Your task to perform on an android device: turn off location history Image 0: 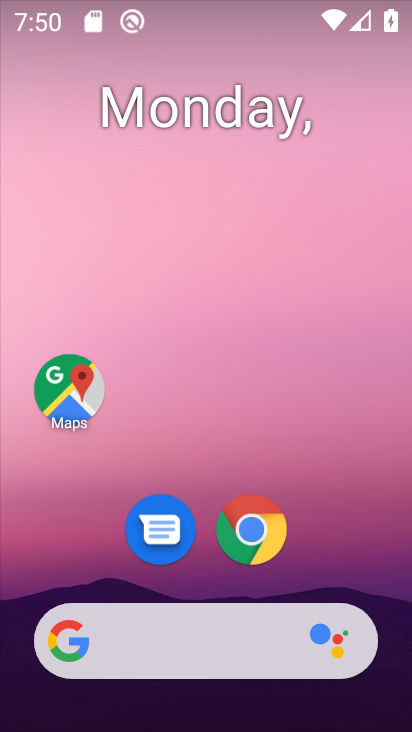
Step 0: drag from (204, 564) to (204, 132)
Your task to perform on an android device: turn off location history Image 1: 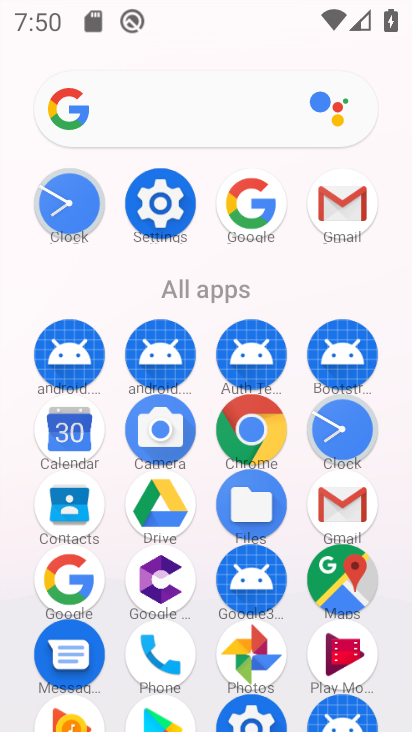
Step 1: click (179, 203)
Your task to perform on an android device: turn off location history Image 2: 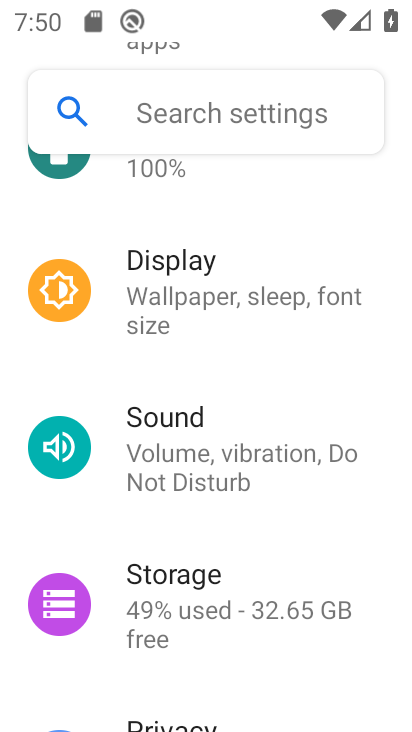
Step 2: drag from (182, 595) to (171, 232)
Your task to perform on an android device: turn off location history Image 3: 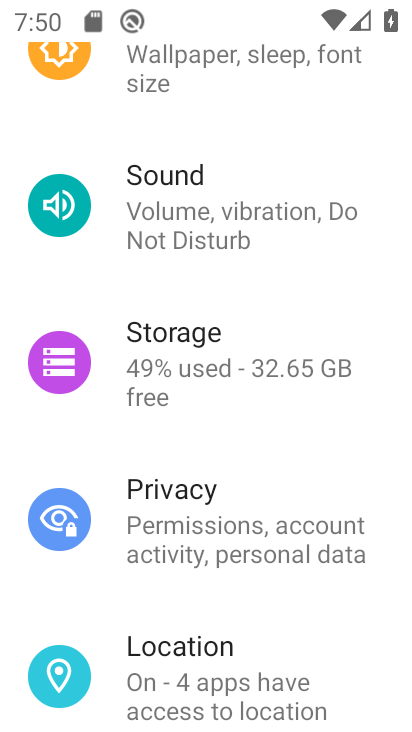
Step 3: click (191, 681)
Your task to perform on an android device: turn off location history Image 4: 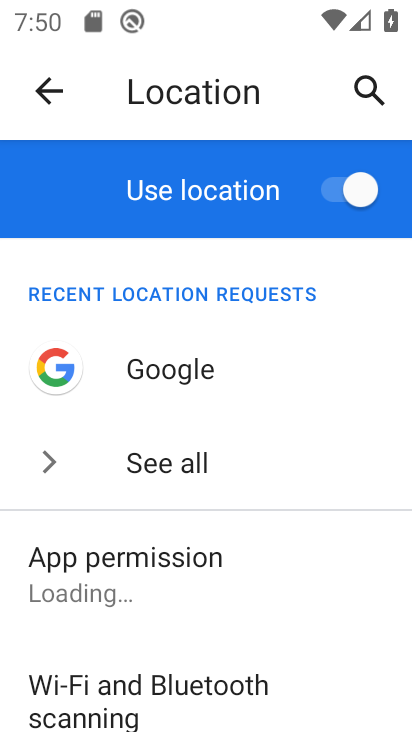
Step 4: drag from (130, 701) to (147, 252)
Your task to perform on an android device: turn off location history Image 5: 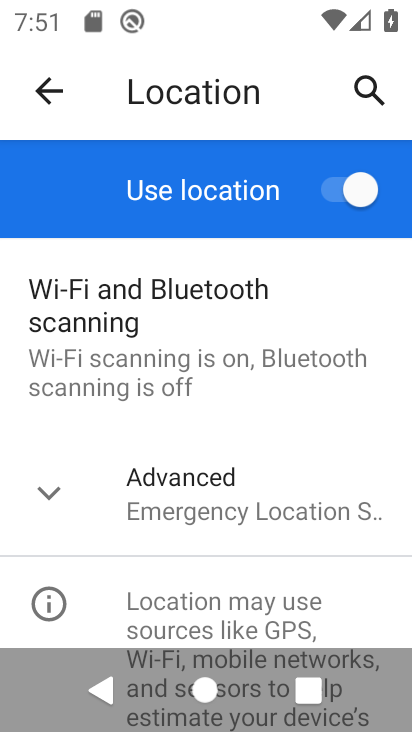
Step 5: click (167, 460)
Your task to perform on an android device: turn off location history Image 6: 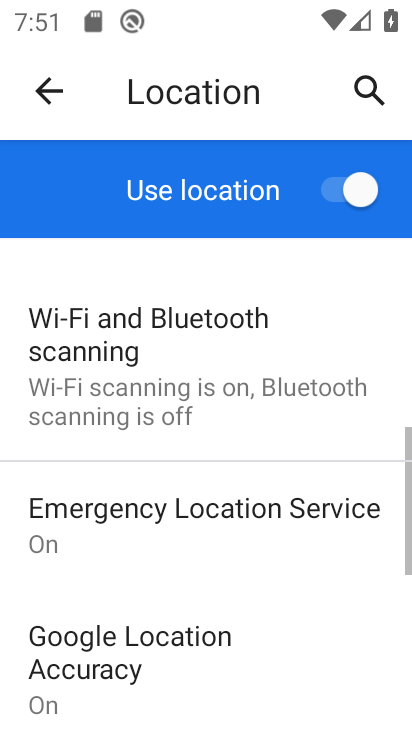
Step 6: drag from (185, 646) to (170, 302)
Your task to perform on an android device: turn off location history Image 7: 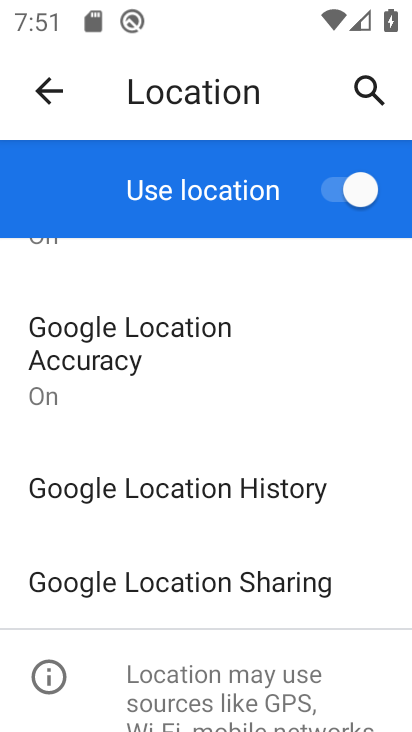
Step 7: click (104, 353)
Your task to perform on an android device: turn off location history Image 8: 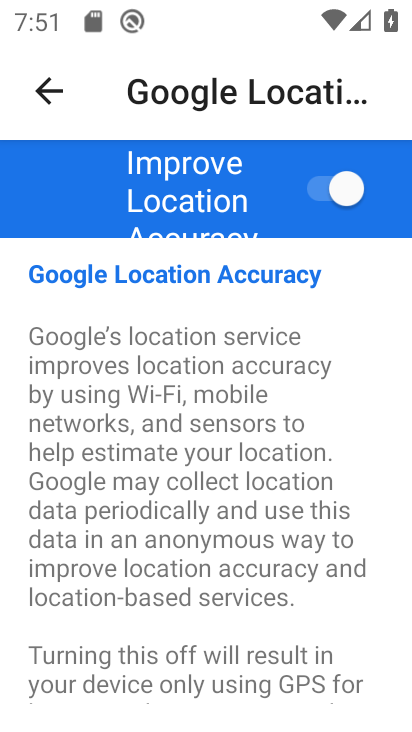
Step 8: click (55, 92)
Your task to perform on an android device: turn off location history Image 9: 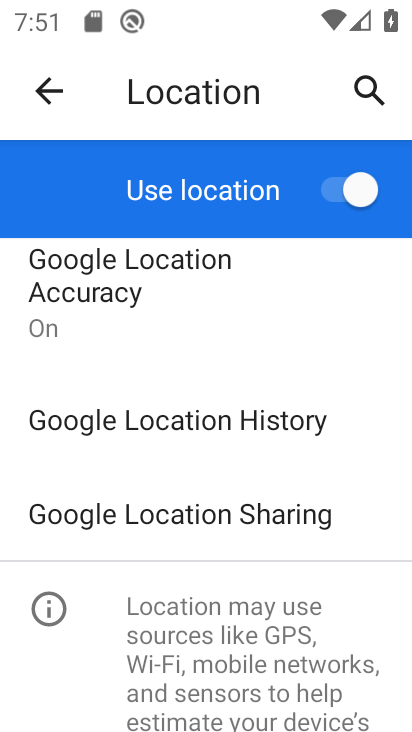
Step 9: click (188, 419)
Your task to perform on an android device: turn off location history Image 10: 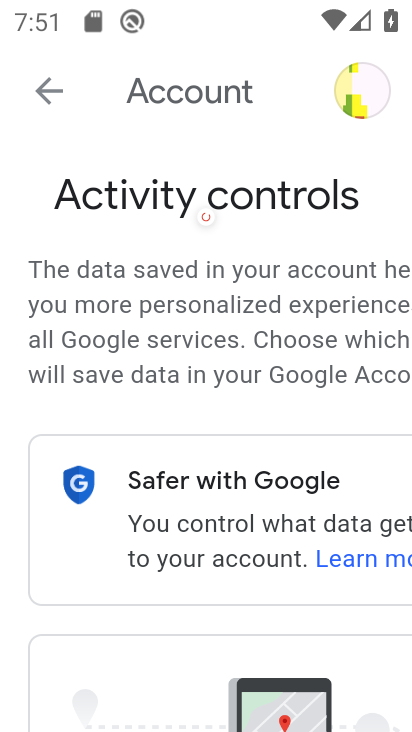
Step 10: press back button
Your task to perform on an android device: turn off location history Image 11: 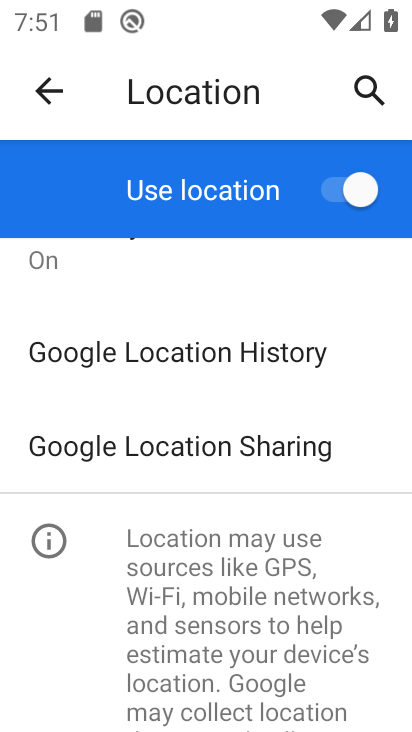
Step 11: press back button
Your task to perform on an android device: turn off location history Image 12: 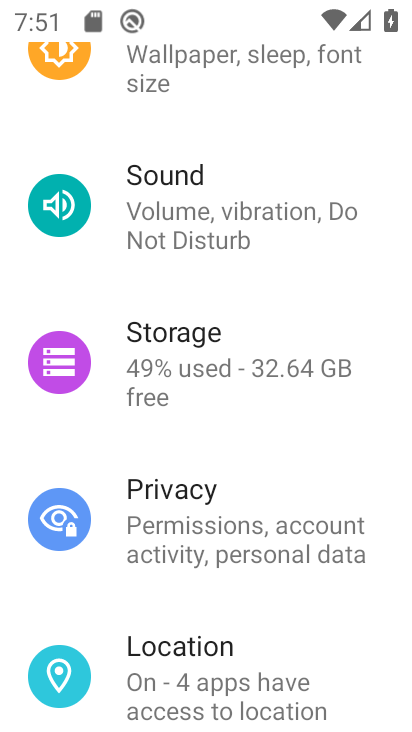
Step 12: click (184, 661)
Your task to perform on an android device: turn off location history Image 13: 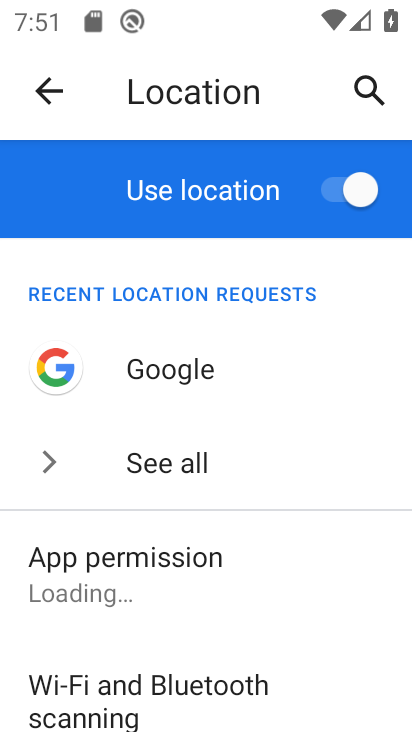
Step 13: drag from (233, 720) to (247, 305)
Your task to perform on an android device: turn off location history Image 14: 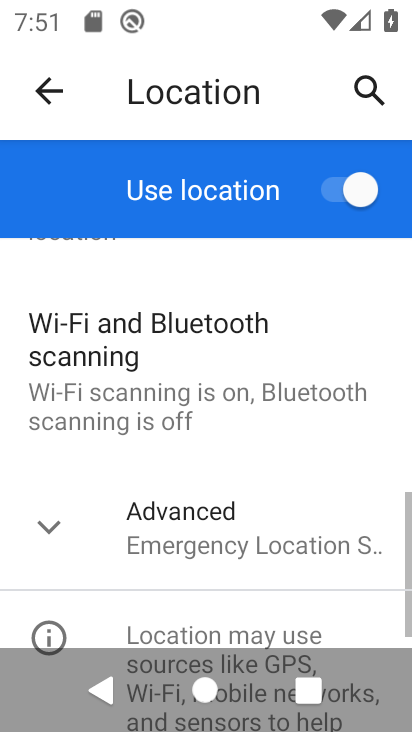
Step 14: click (210, 491)
Your task to perform on an android device: turn off location history Image 15: 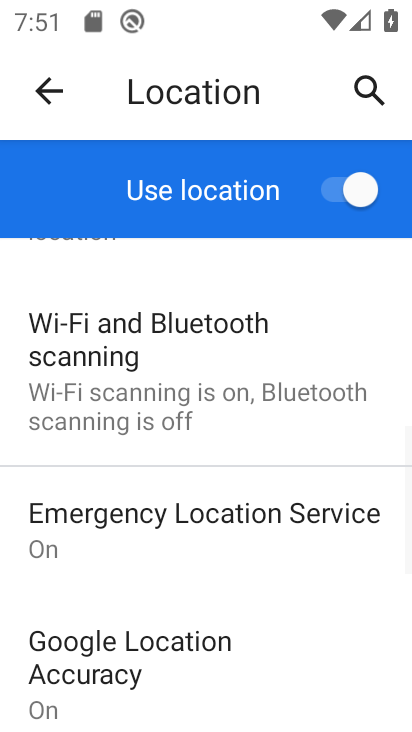
Step 15: drag from (204, 691) to (224, 350)
Your task to perform on an android device: turn off location history Image 16: 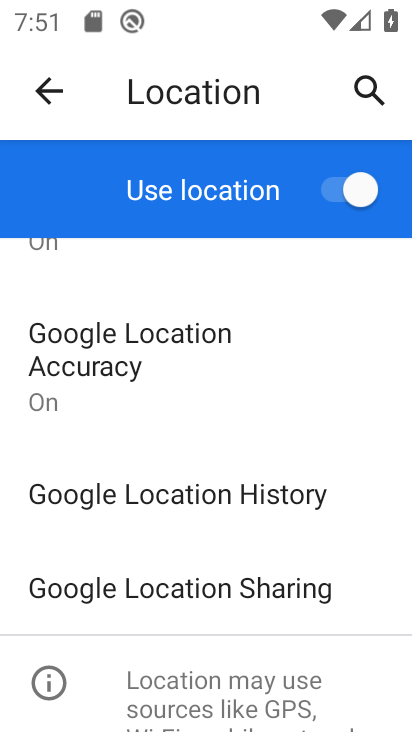
Step 16: click (116, 502)
Your task to perform on an android device: turn off location history Image 17: 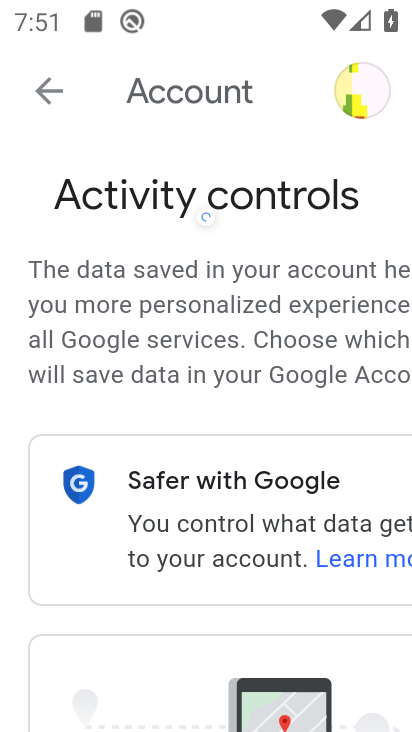
Step 17: drag from (160, 725) to (213, 267)
Your task to perform on an android device: turn off location history Image 18: 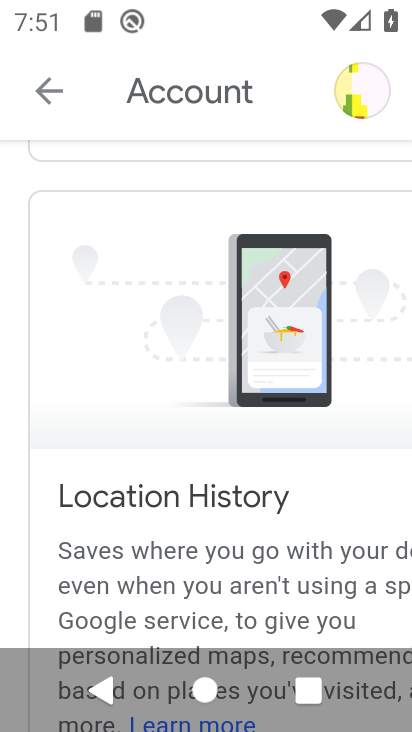
Step 18: drag from (226, 584) to (229, 236)
Your task to perform on an android device: turn off location history Image 19: 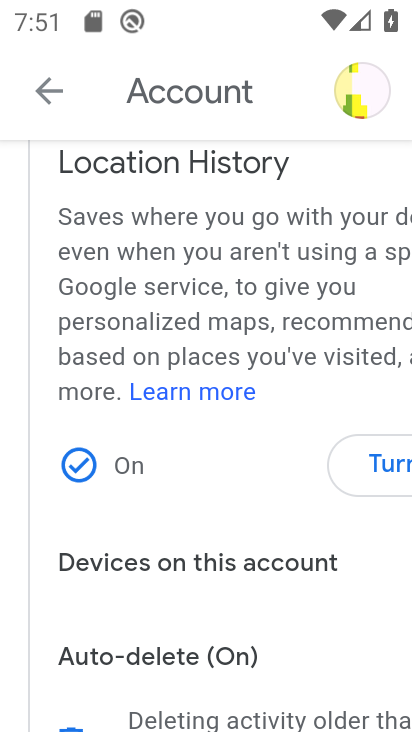
Step 19: click (382, 470)
Your task to perform on an android device: turn off location history Image 20: 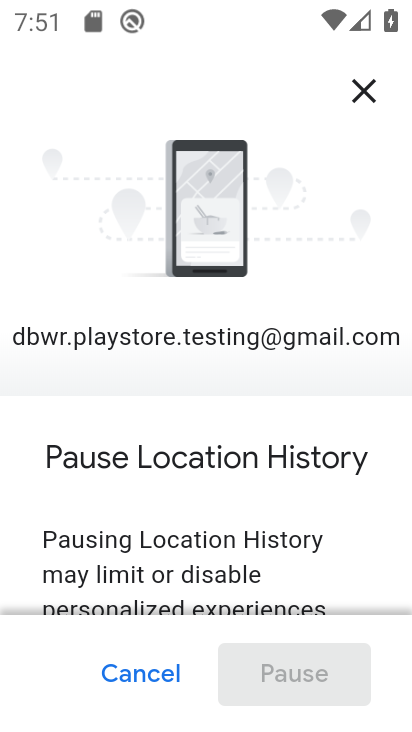
Step 20: drag from (302, 574) to (300, 127)
Your task to perform on an android device: turn off location history Image 21: 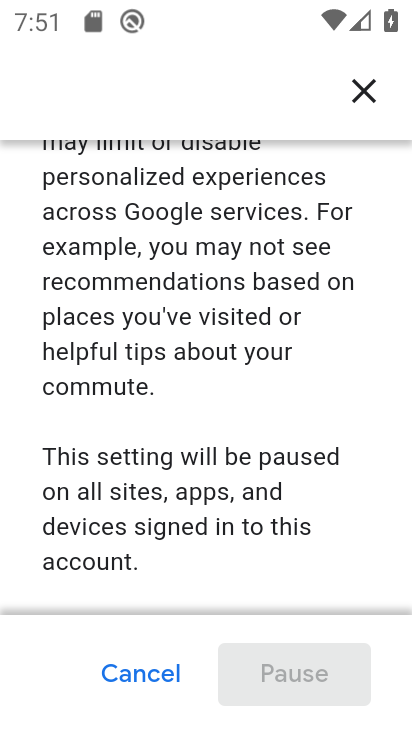
Step 21: drag from (241, 604) to (251, 182)
Your task to perform on an android device: turn off location history Image 22: 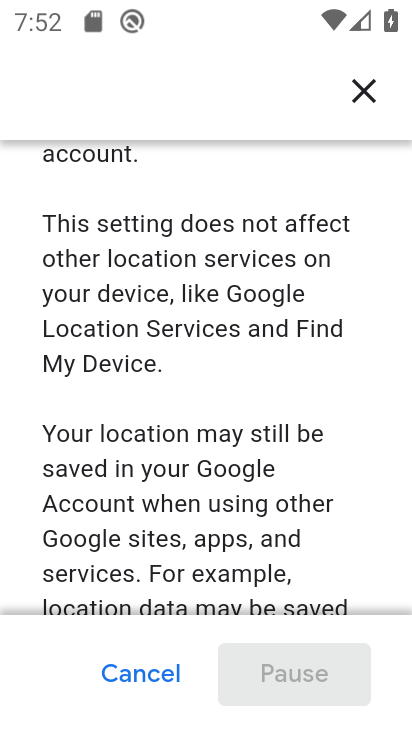
Step 22: drag from (286, 605) to (273, 290)
Your task to perform on an android device: turn off location history Image 23: 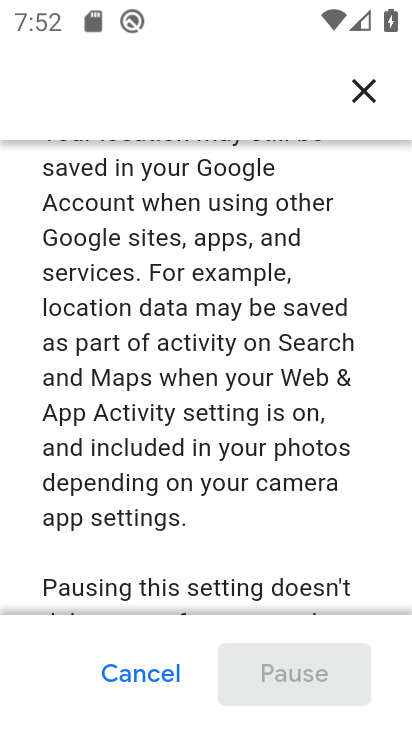
Step 23: drag from (260, 609) to (247, 276)
Your task to perform on an android device: turn off location history Image 24: 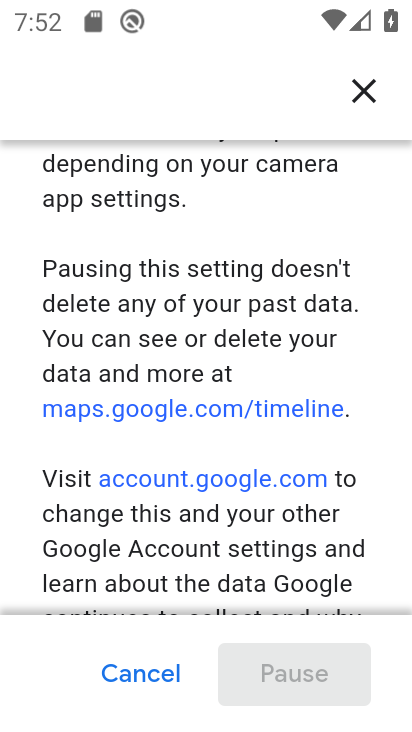
Step 24: drag from (281, 601) to (273, 247)
Your task to perform on an android device: turn off location history Image 25: 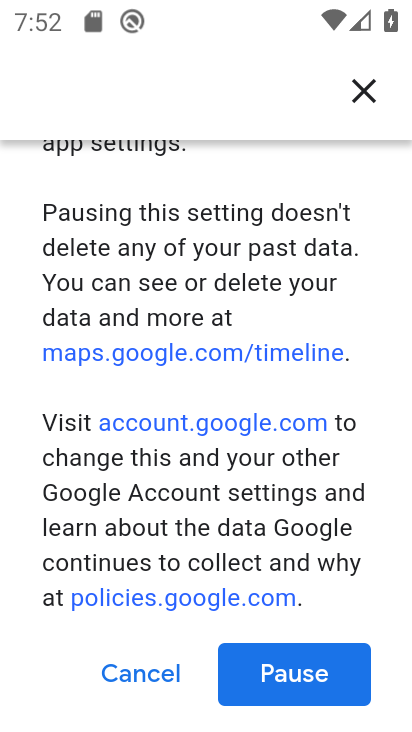
Step 25: click (300, 673)
Your task to perform on an android device: turn off location history Image 26: 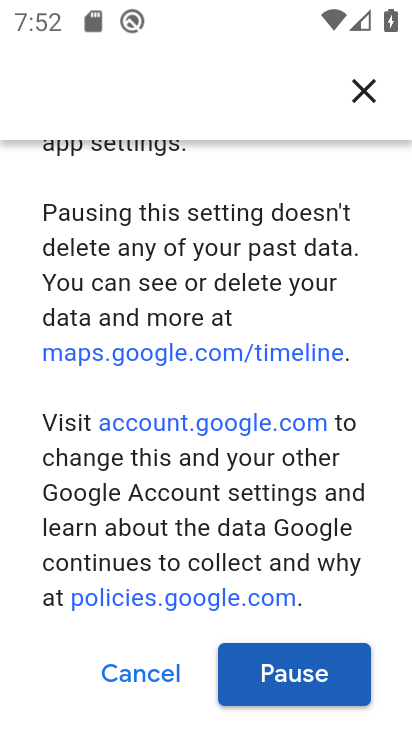
Step 26: click (296, 677)
Your task to perform on an android device: turn off location history Image 27: 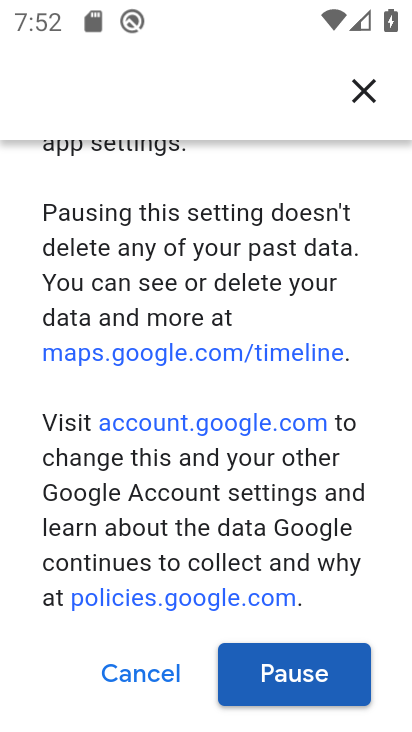
Step 27: click (295, 678)
Your task to perform on an android device: turn off location history Image 28: 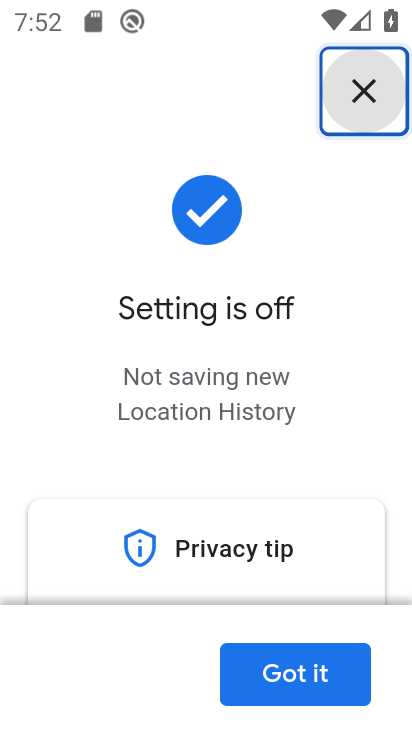
Step 28: click (296, 678)
Your task to perform on an android device: turn off location history Image 29: 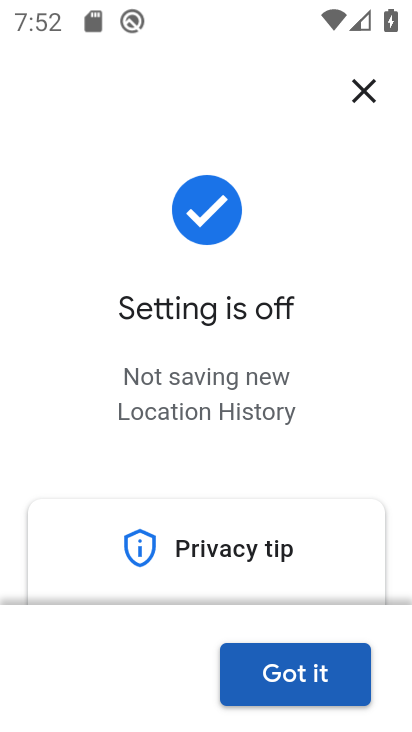
Step 29: click (311, 675)
Your task to perform on an android device: turn off location history Image 30: 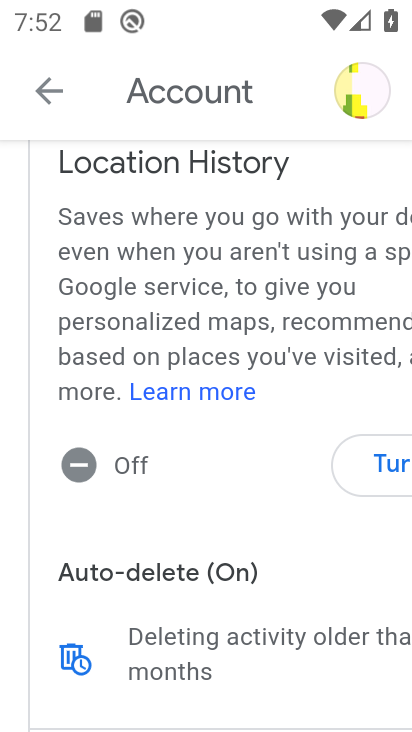
Step 30: task complete